Your task to perform on an android device: Open the map Image 0: 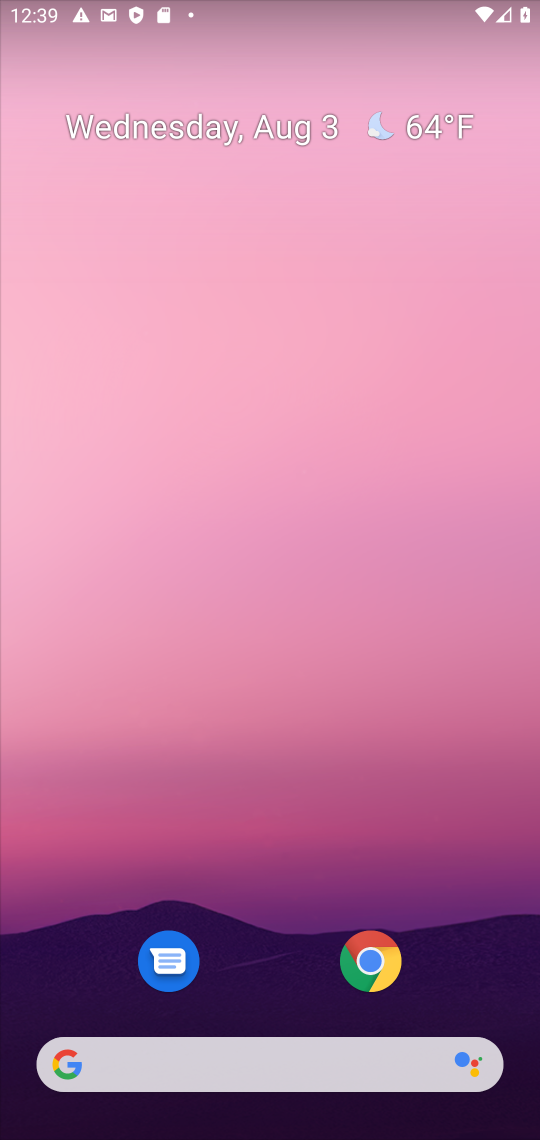
Step 0: drag from (291, 520) to (279, 26)
Your task to perform on an android device: Open the map Image 1: 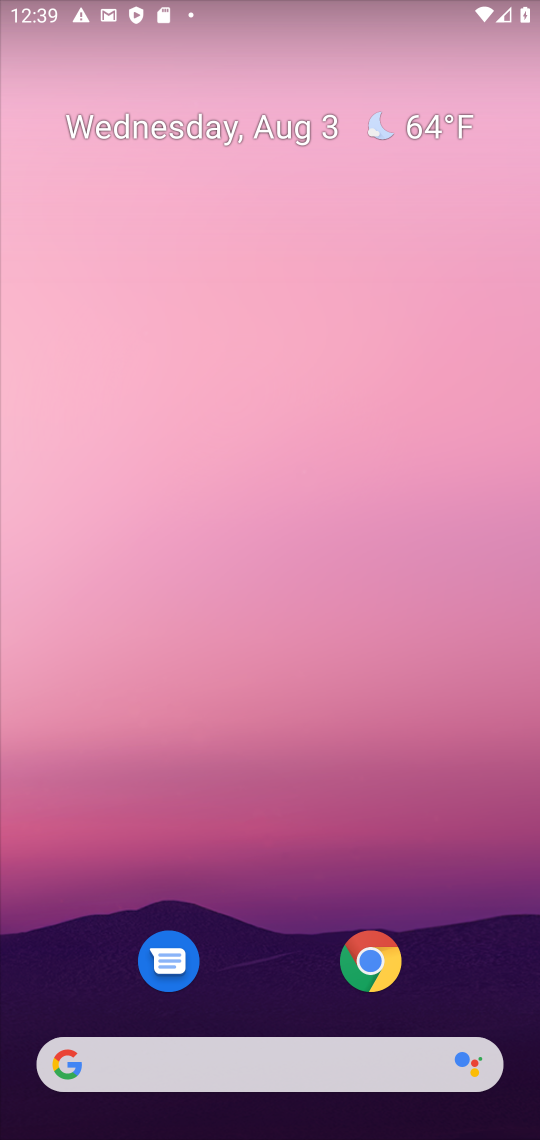
Step 1: drag from (298, 958) to (284, 22)
Your task to perform on an android device: Open the map Image 2: 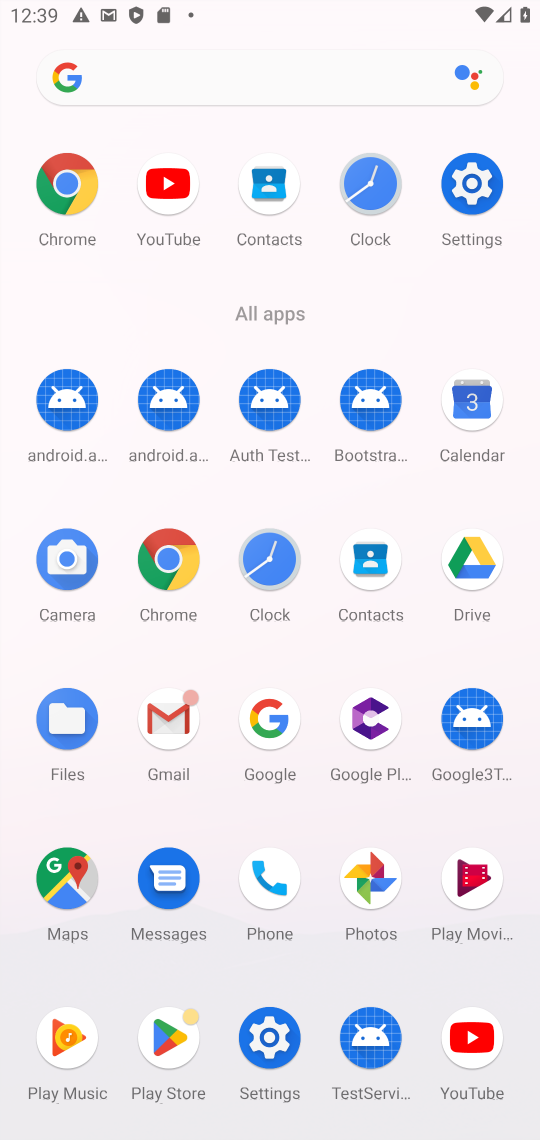
Step 2: click (69, 880)
Your task to perform on an android device: Open the map Image 3: 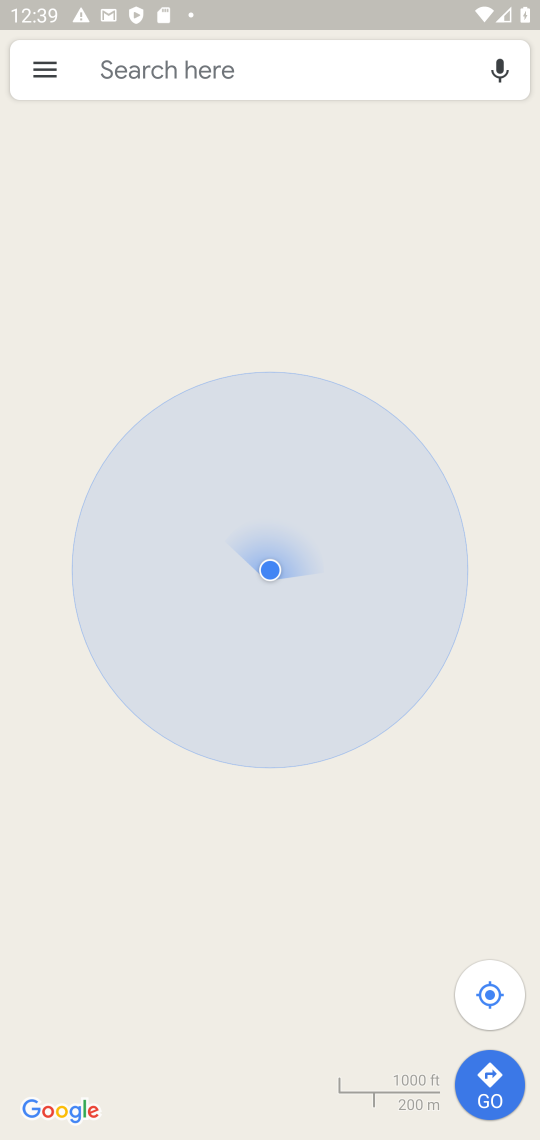
Step 3: task complete